Your task to perform on an android device: check battery use Image 0: 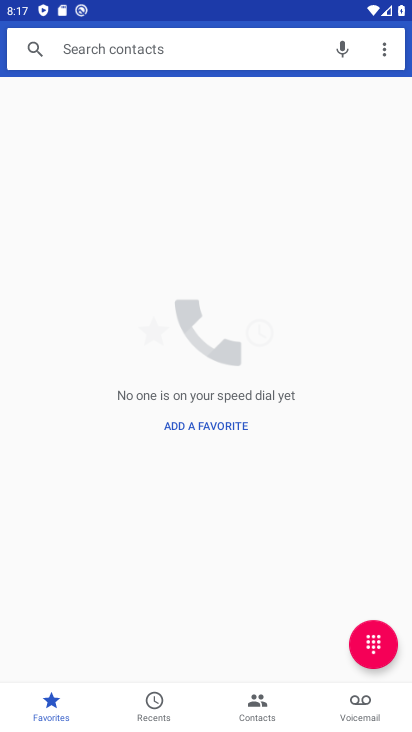
Step 0: press home button
Your task to perform on an android device: check battery use Image 1: 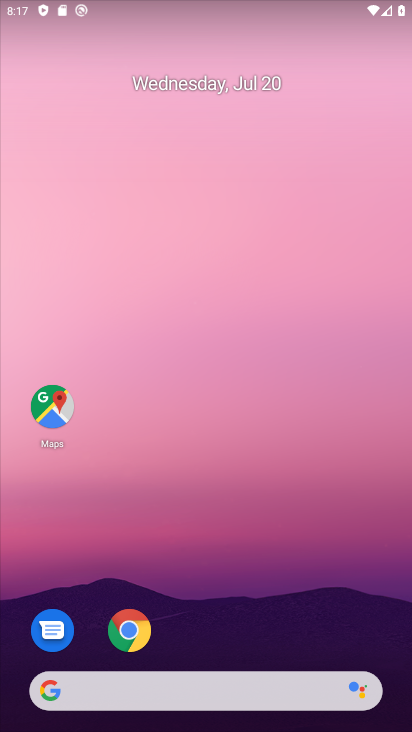
Step 1: drag from (398, 702) to (299, 25)
Your task to perform on an android device: check battery use Image 2: 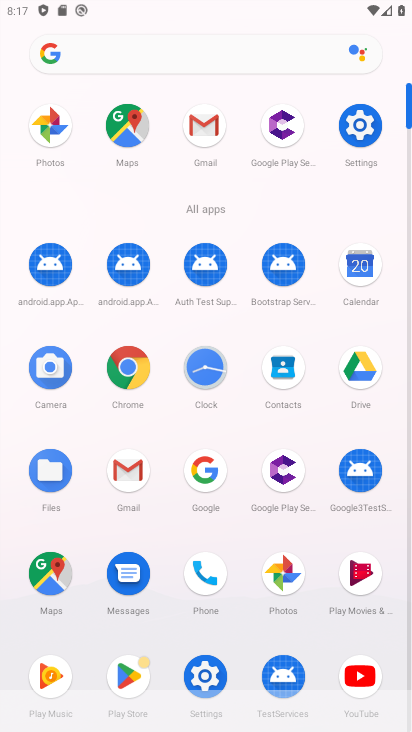
Step 2: click (346, 122)
Your task to perform on an android device: check battery use Image 3: 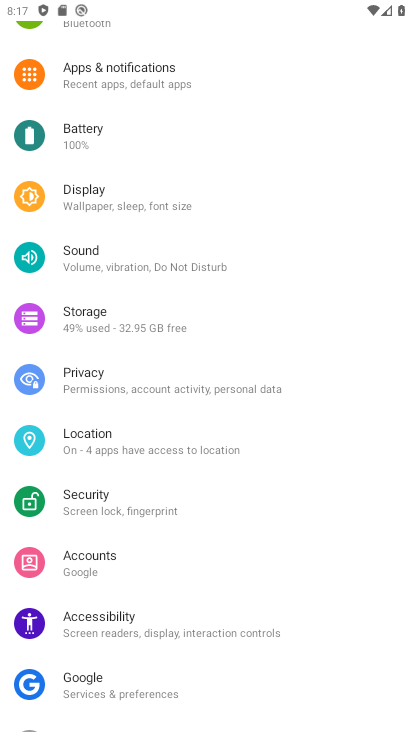
Step 3: click (72, 128)
Your task to perform on an android device: check battery use Image 4: 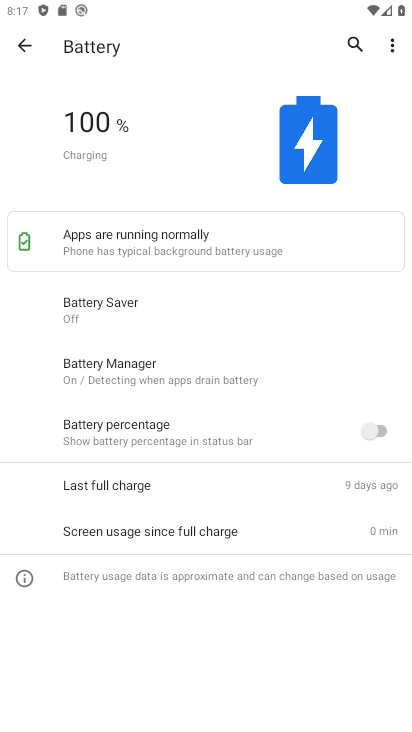
Step 4: task complete